Your task to perform on an android device: Go to Google maps Image 0: 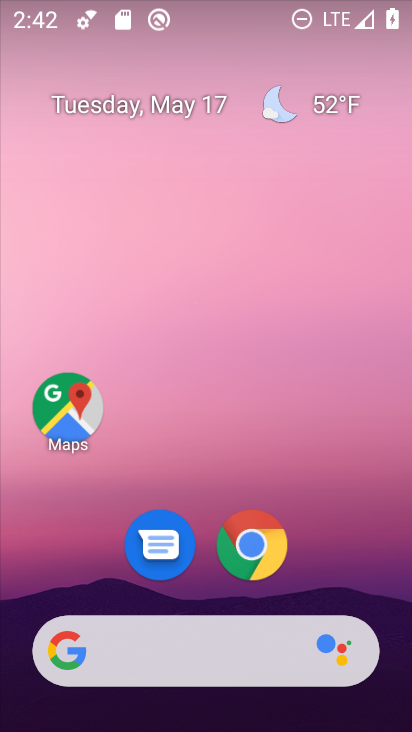
Step 0: drag from (351, 582) to (355, 357)
Your task to perform on an android device: Go to Google maps Image 1: 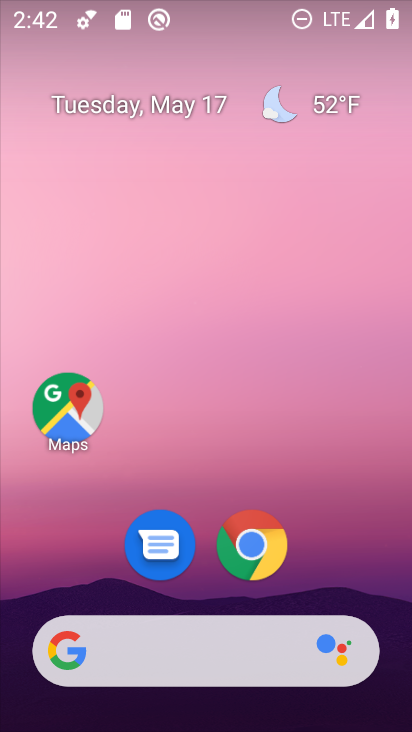
Step 1: drag from (341, 557) to (342, 132)
Your task to perform on an android device: Go to Google maps Image 2: 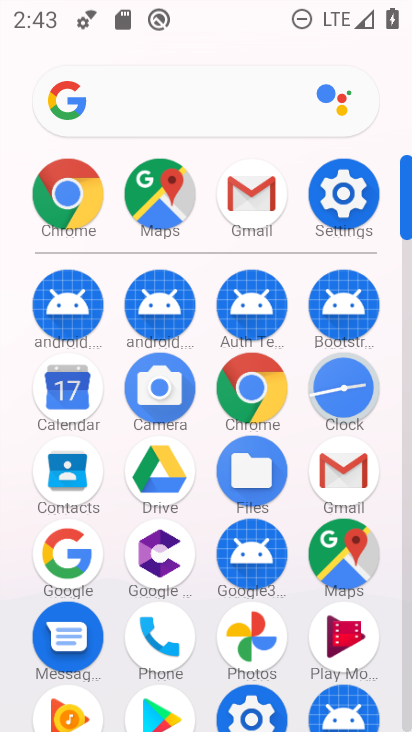
Step 2: click (358, 552)
Your task to perform on an android device: Go to Google maps Image 3: 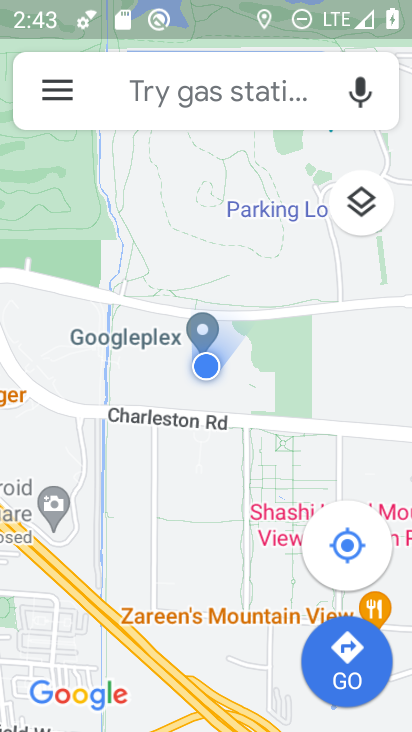
Step 3: task complete